Your task to perform on an android device: Open calendar and show me the third week of next month Image 0: 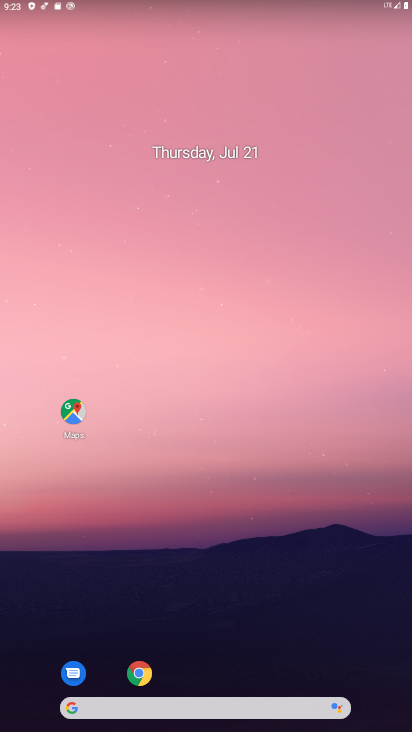
Step 0: drag from (223, 673) to (221, 220)
Your task to perform on an android device: Open calendar and show me the third week of next month Image 1: 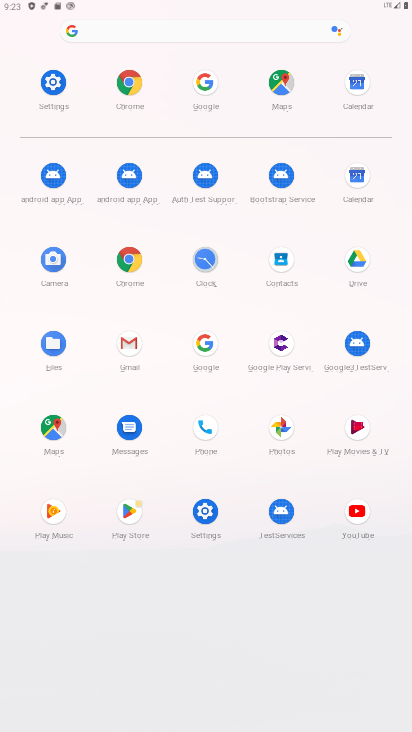
Step 1: click (348, 197)
Your task to perform on an android device: Open calendar and show me the third week of next month Image 2: 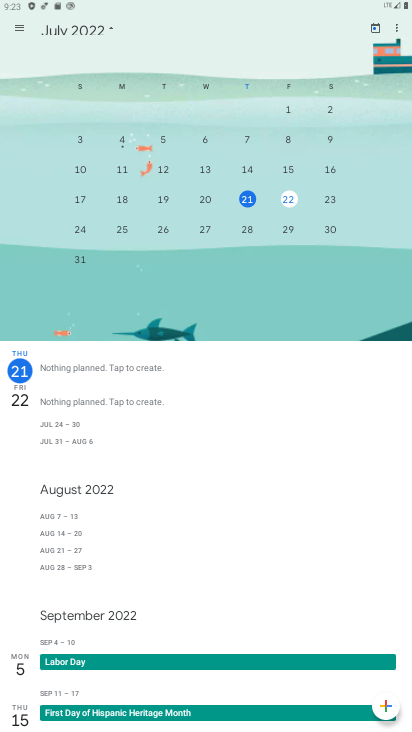
Step 2: drag from (347, 166) to (0, 183)
Your task to perform on an android device: Open calendar and show me the third week of next month Image 3: 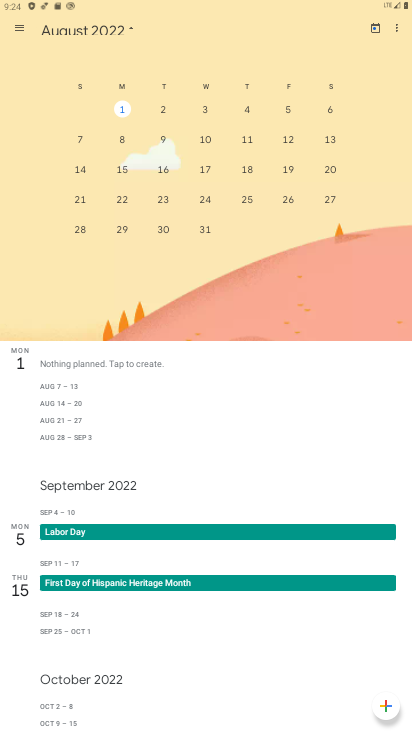
Step 3: click (86, 168)
Your task to perform on an android device: Open calendar and show me the third week of next month Image 4: 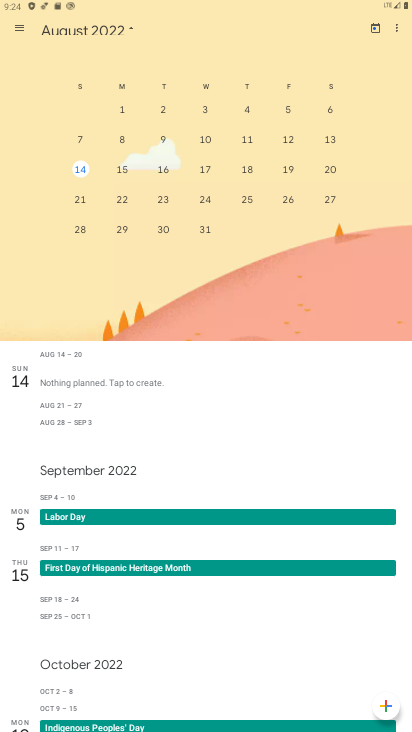
Step 4: task complete